Your task to perform on an android device: turn on notifications settings in the gmail app Image 0: 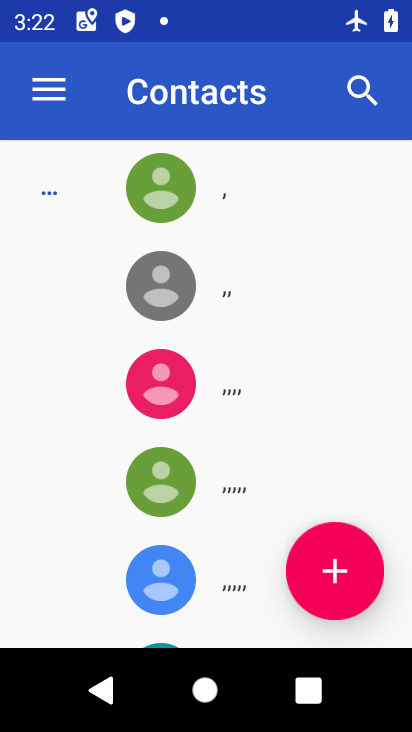
Step 0: press home button
Your task to perform on an android device: turn on notifications settings in the gmail app Image 1: 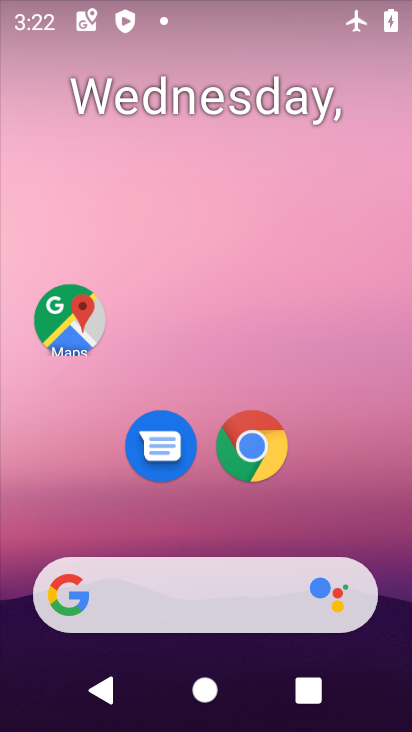
Step 1: drag from (194, 519) to (203, 53)
Your task to perform on an android device: turn on notifications settings in the gmail app Image 2: 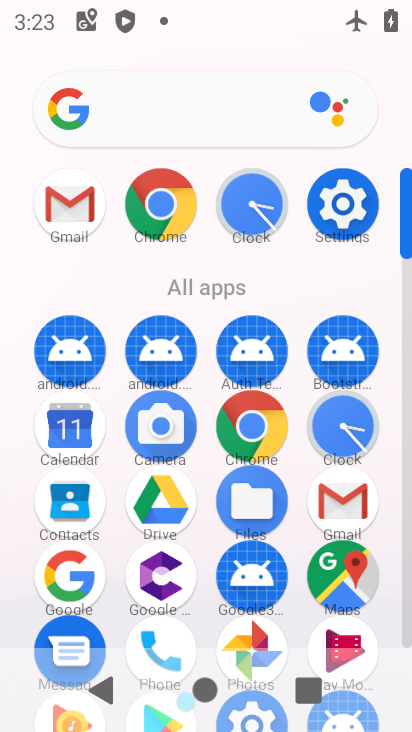
Step 2: click (58, 192)
Your task to perform on an android device: turn on notifications settings in the gmail app Image 3: 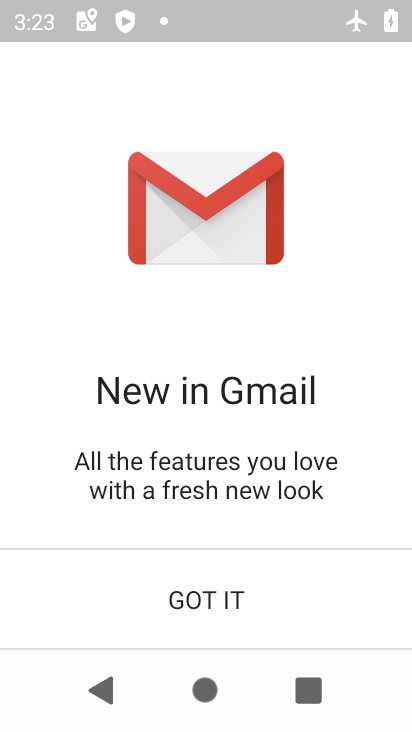
Step 3: click (224, 593)
Your task to perform on an android device: turn on notifications settings in the gmail app Image 4: 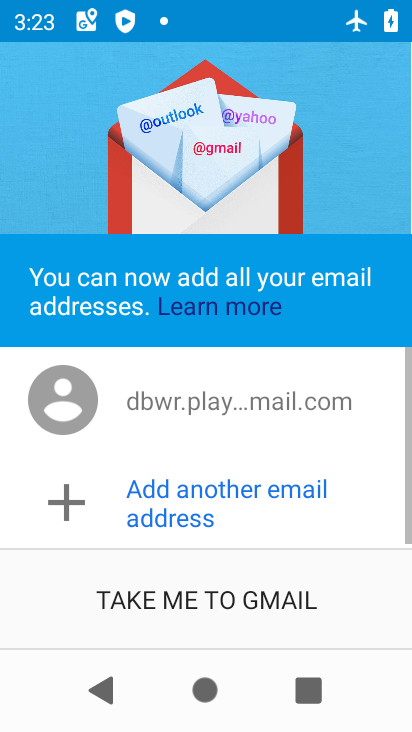
Step 4: click (190, 584)
Your task to perform on an android device: turn on notifications settings in the gmail app Image 5: 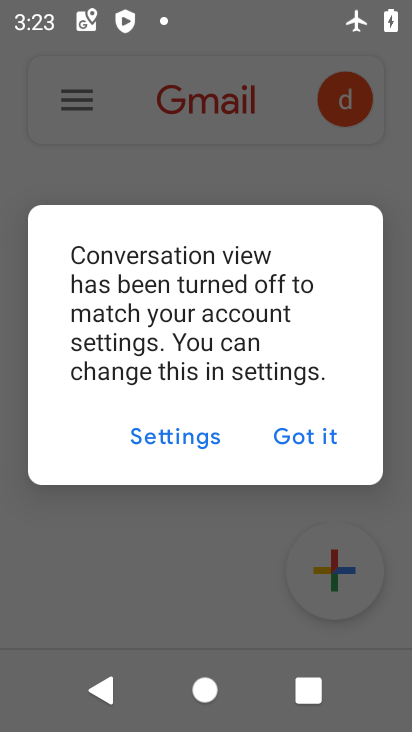
Step 5: click (285, 429)
Your task to perform on an android device: turn on notifications settings in the gmail app Image 6: 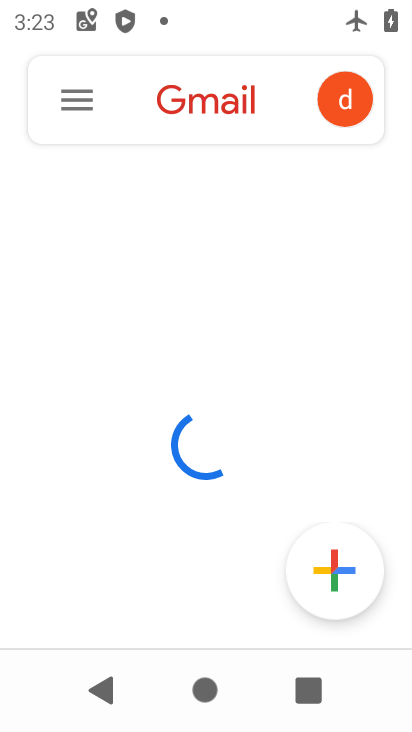
Step 6: click (66, 97)
Your task to perform on an android device: turn on notifications settings in the gmail app Image 7: 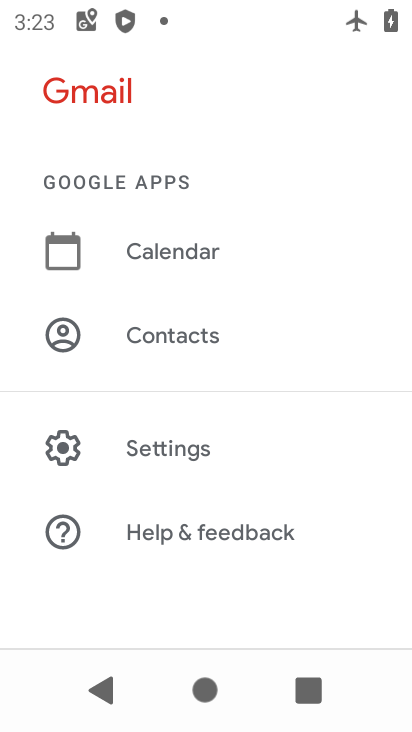
Step 7: click (180, 469)
Your task to perform on an android device: turn on notifications settings in the gmail app Image 8: 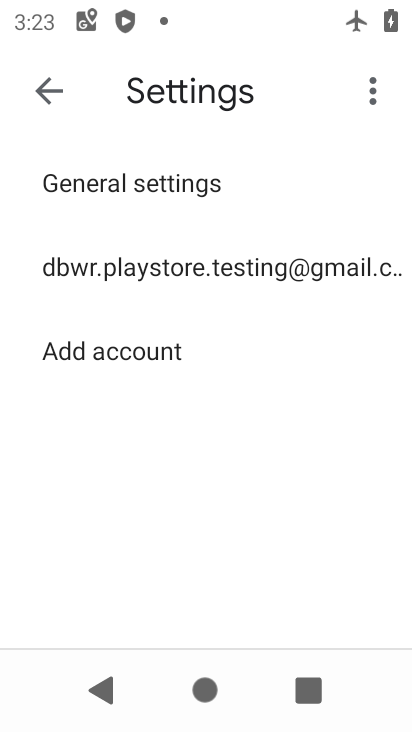
Step 8: click (131, 264)
Your task to perform on an android device: turn on notifications settings in the gmail app Image 9: 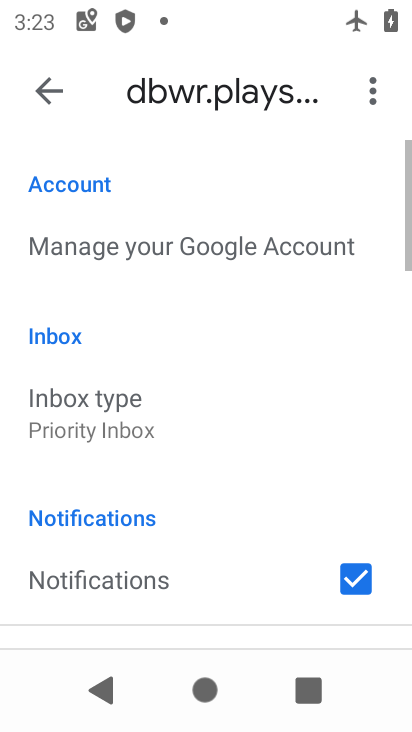
Step 9: task complete